Your task to perform on an android device: all mails in gmail Image 0: 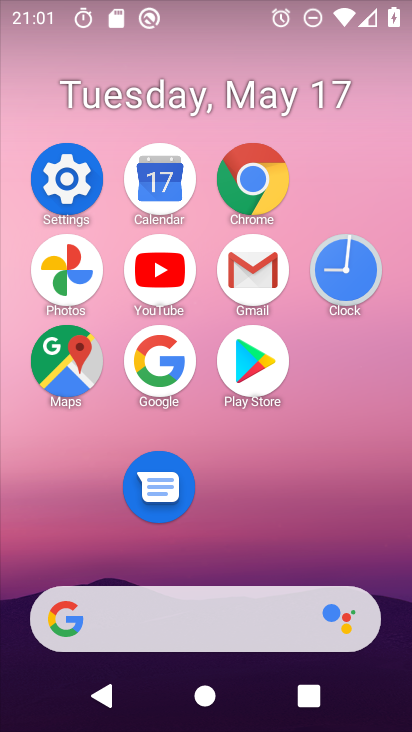
Step 0: click (261, 268)
Your task to perform on an android device: all mails in gmail Image 1: 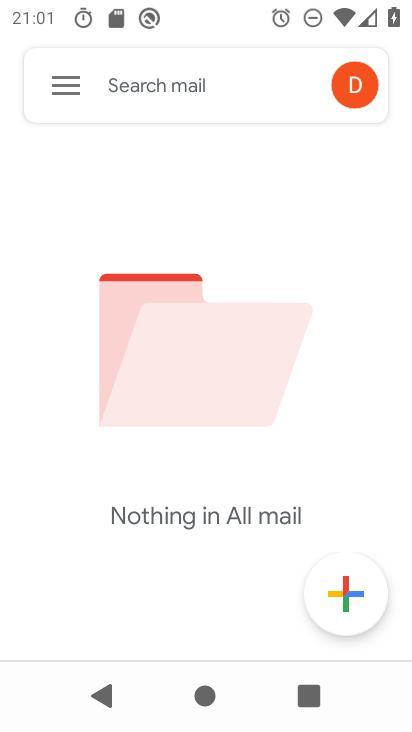
Step 1: click (46, 80)
Your task to perform on an android device: all mails in gmail Image 2: 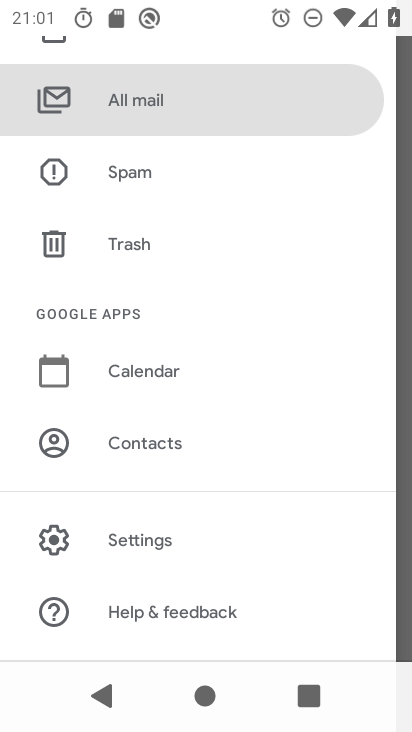
Step 2: click (181, 114)
Your task to perform on an android device: all mails in gmail Image 3: 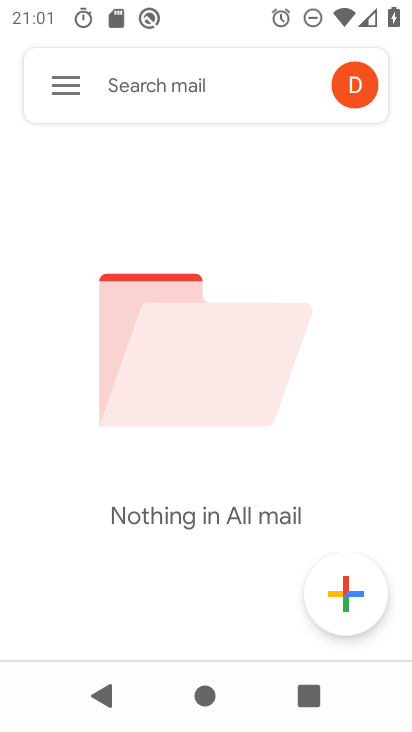
Step 3: task complete